Your task to perform on an android device: toggle show notifications on the lock screen Image 0: 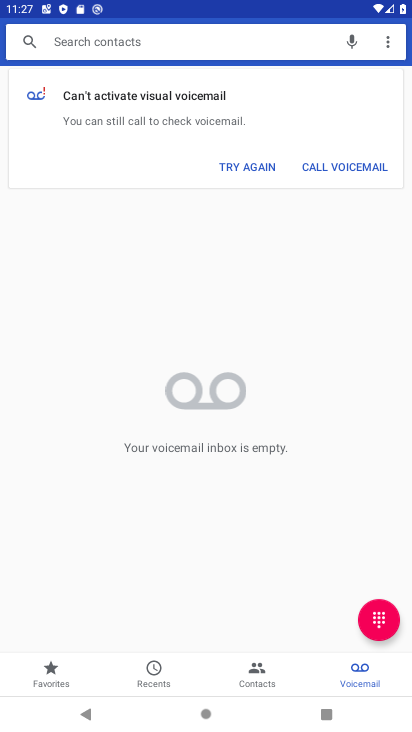
Step 0: press home button
Your task to perform on an android device: toggle show notifications on the lock screen Image 1: 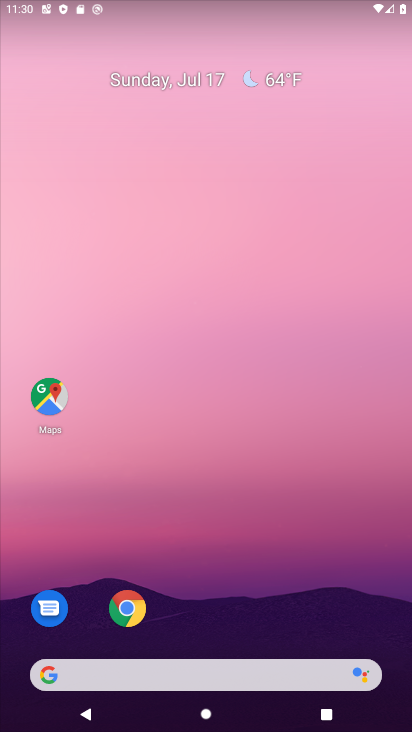
Step 1: drag from (292, 546) to (249, 0)
Your task to perform on an android device: toggle show notifications on the lock screen Image 2: 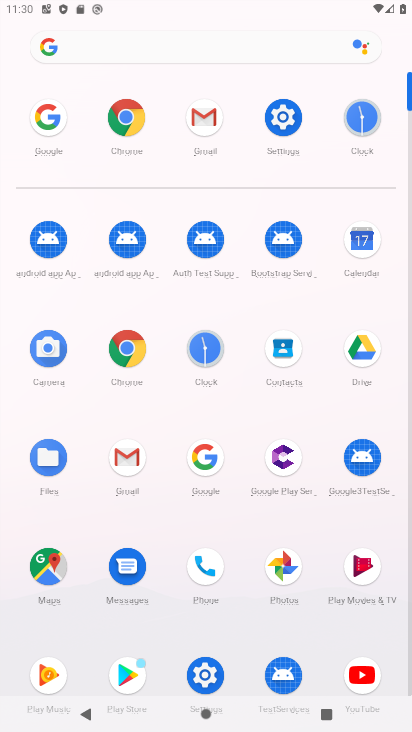
Step 2: click (209, 667)
Your task to perform on an android device: toggle show notifications on the lock screen Image 3: 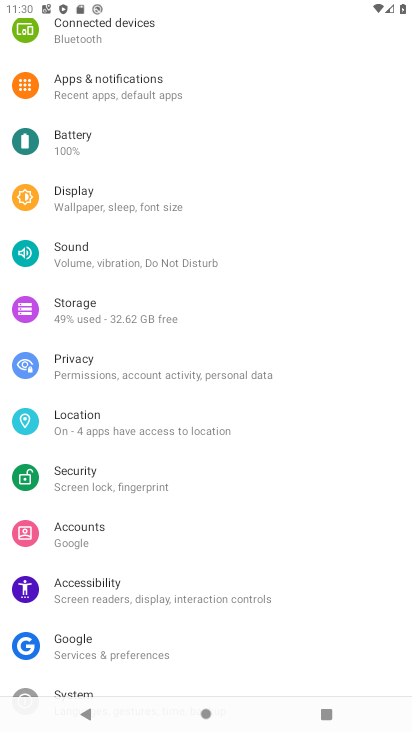
Step 3: click (148, 88)
Your task to perform on an android device: toggle show notifications on the lock screen Image 4: 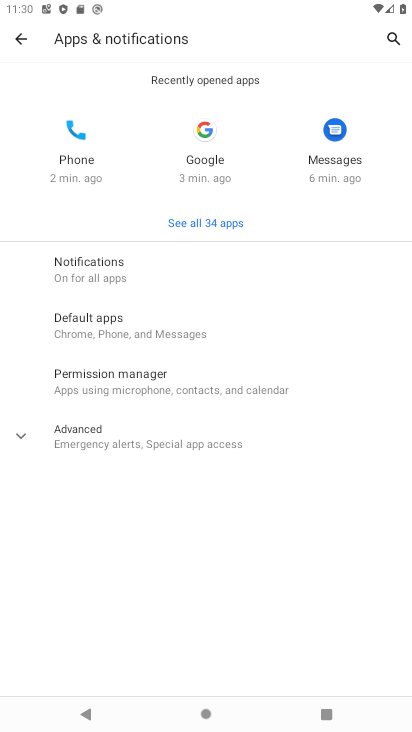
Step 4: click (132, 258)
Your task to perform on an android device: toggle show notifications on the lock screen Image 5: 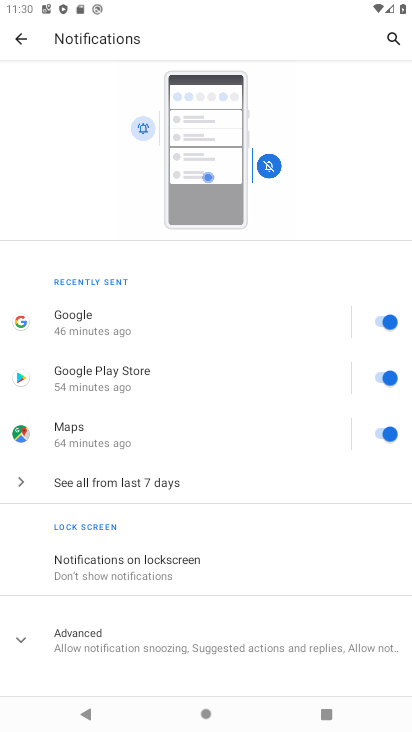
Step 5: click (138, 559)
Your task to perform on an android device: toggle show notifications on the lock screen Image 6: 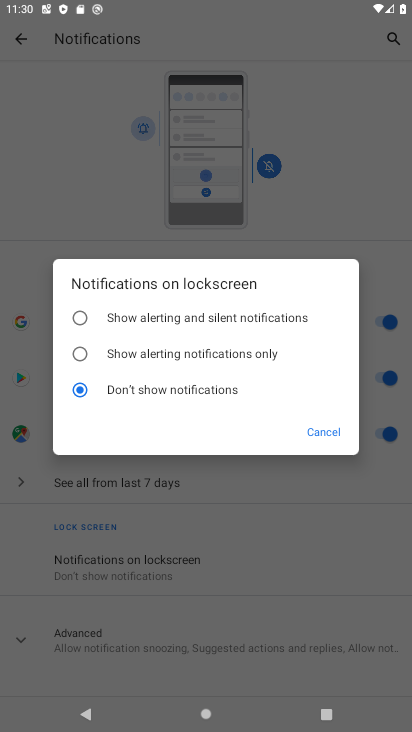
Step 6: click (83, 307)
Your task to perform on an android device: toggle show notifications on the lock screen Image 7: 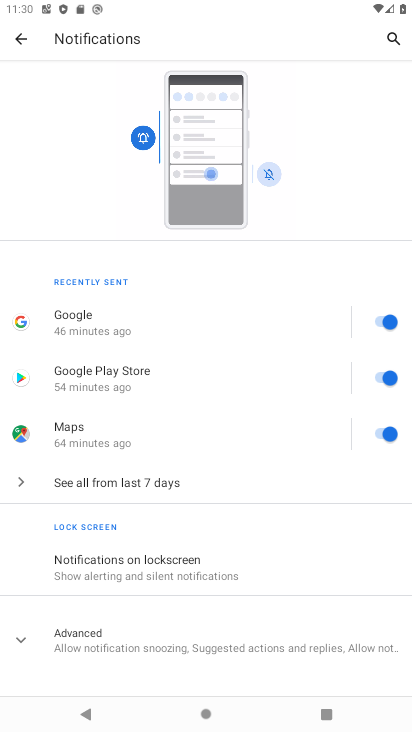
Step 7: task complete